Your task to perform on an android device: Set the phone to "Do not disturb". Image 0: 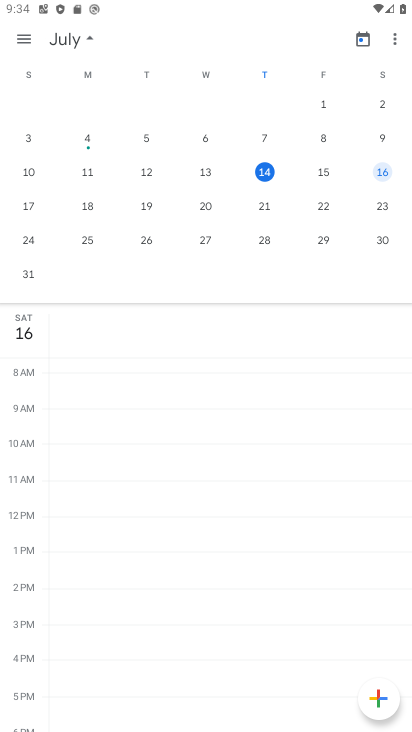
Step 0: press back button
Your task to perform on an android device: Set the phone to "Do not disturb". Image 1: 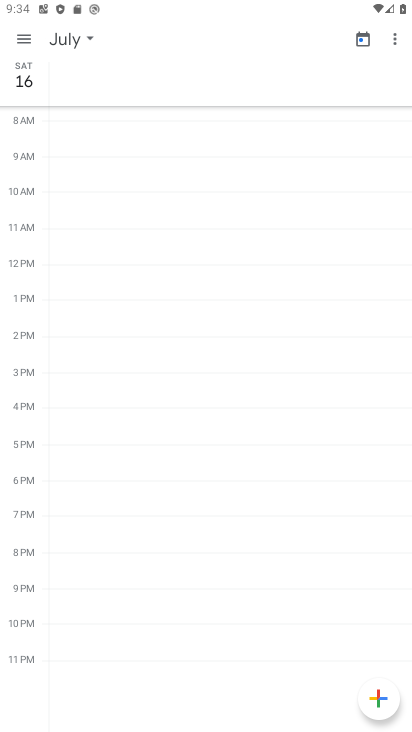
Step 1: press back button
Your task to perform on an android device: Set the phone to "Do not disturb". Image 2: 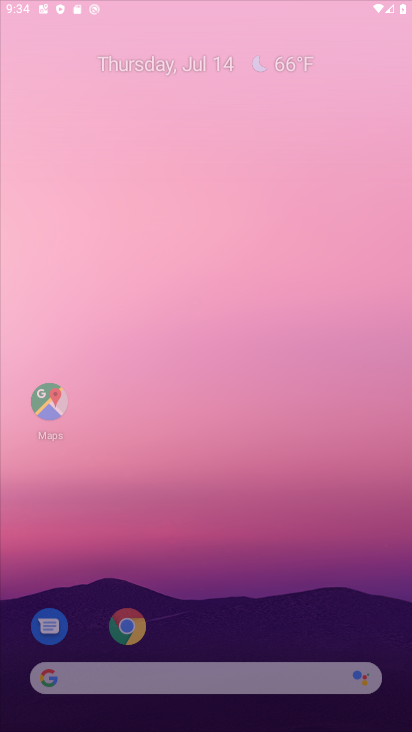
Step 2: press home button
Your task to perform on an android device: Set the phone to "Do not disturb". Image 3: 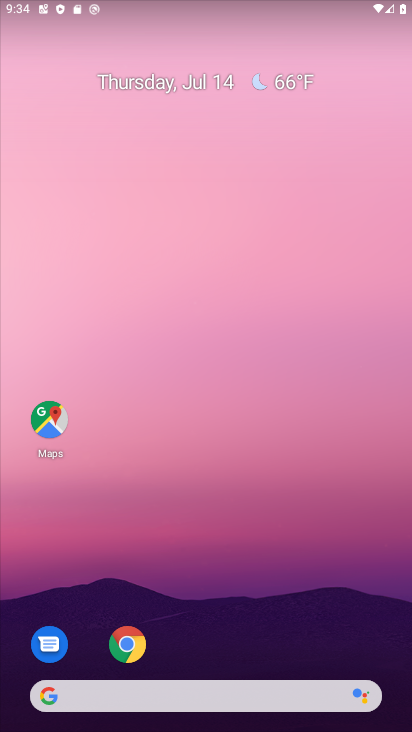
Step 3: click (200, 184)
Your task to perform on an android device: Set the phone to "Do not disturb". Image 4: 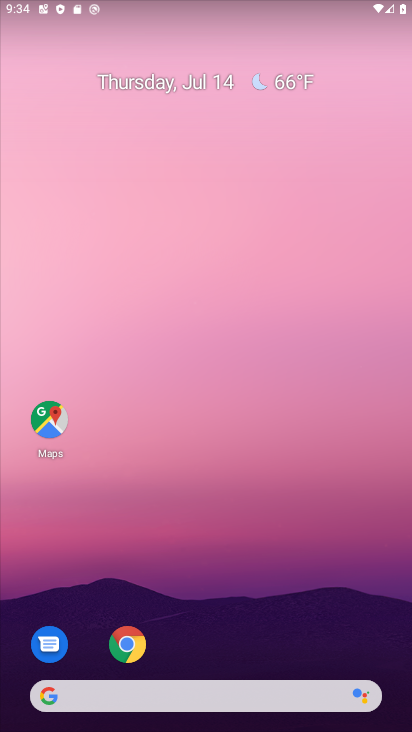
Step 4: drag from (228, 717) to (185, 192)
Your task to perform on an android device: Set the phone to "Do not disturb". Image 5: 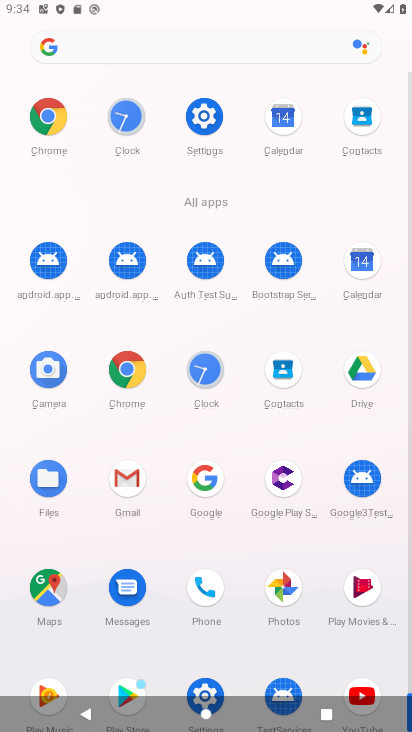
Step 5: click (206, 116)
Your task to perform on an android device: Set the phone to "Do not disturb". Image 6: 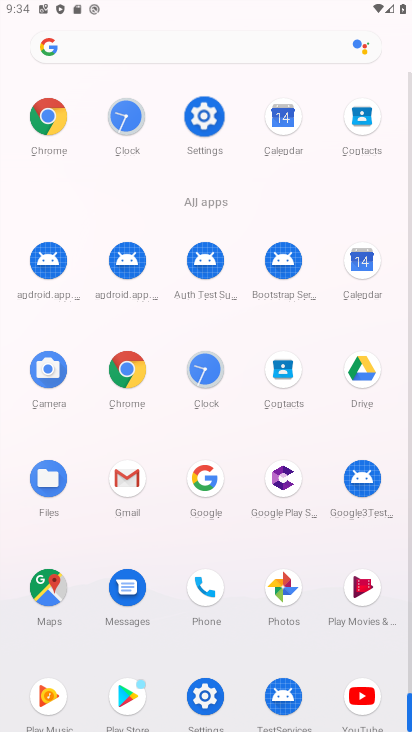
Step 6: click (206, 116)
Your task to perform on an android device: Set the phone to "Do not disturb". Image 7: 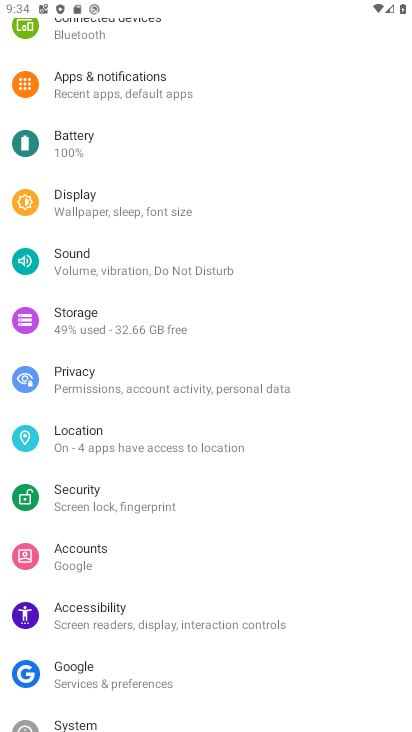
Step 7: click (136, 261)
Your task to perform on an android device: Set the phone to "Do not disturb". Image 8: 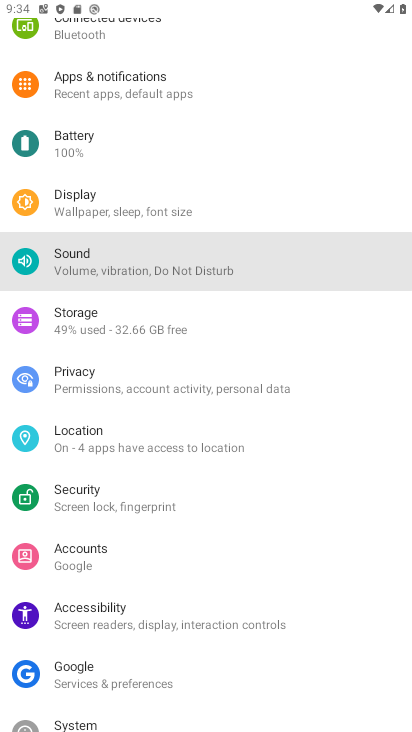
Step 8: click (134, 259)
Your task to perform on an android device: Set the phone to "Do not disturb". Image 9: 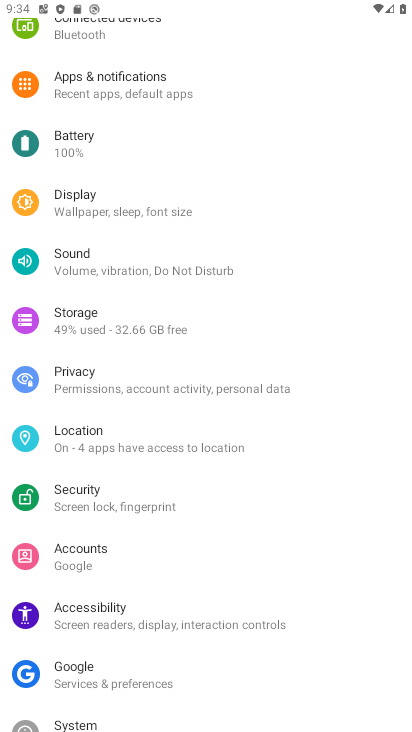
Step 9: click (119, 272)
Your task to perform on an android device: Set the phone to "Do not disturb". Image 10: 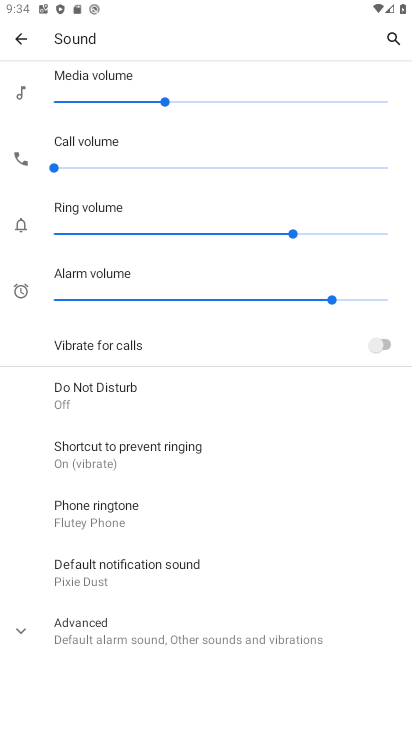
Step 10: click (92, 387)
Your task to perform on an android device: Set the phone to "Do not disturb". Image 11: 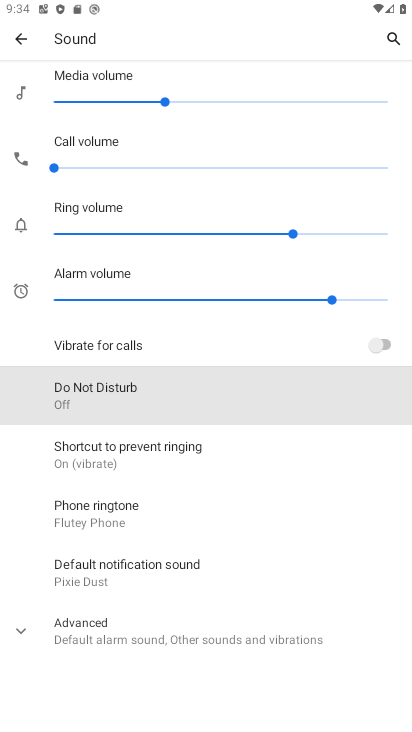
Step 11: click (87, 391)
Your task to perform on an android device: Set the phone to "Do not disturb". Image 12: 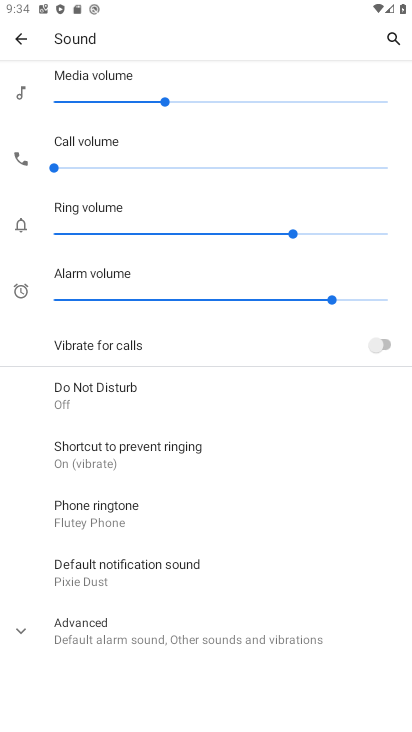
Step 12: click (87, 391)
Your task to perform on an android device: Set the phone to "Do not disturb". Image 13: 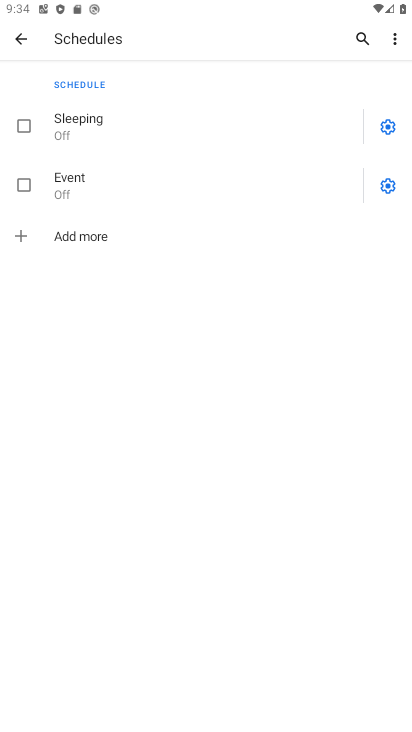
Step 13: click (17, 31)
Your task to perform on an android device: Set the phone to "Do not disturb". Image 14: 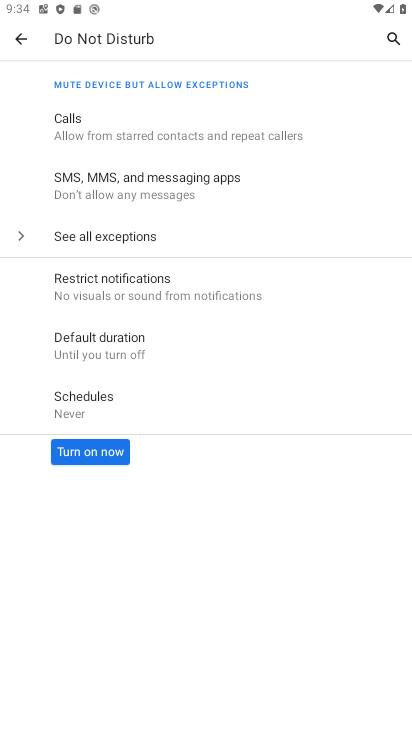
Step 14: click (79, 433)
Your task to perform on an android device: Set the phone to "Do not disturb". Image 15: 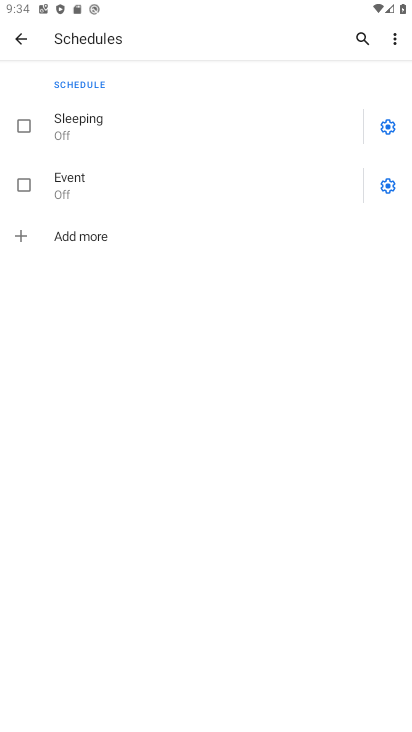
Step 15: task complete